Your task to perform on an android device: set the stopwatch Image 0: 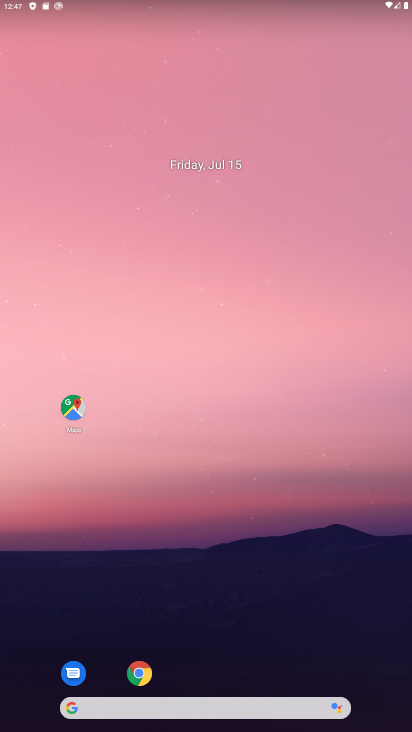
Step 0: drag from (265, 671) to (302, 28)
Your task to perform on an android device: set the stopwatch Image 1: 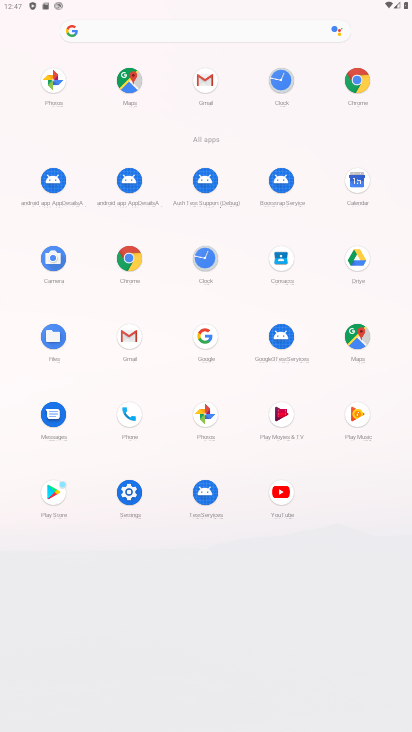
Step 1: click (277, 92)
Your task to perform on an android device: set the stopwatch Image 2: 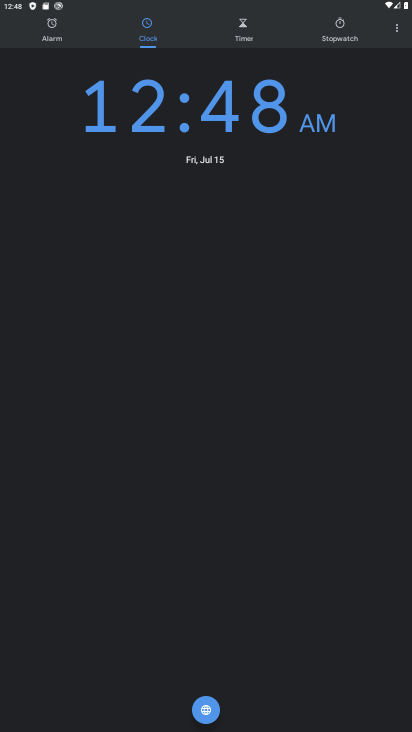
Step 2: click (334, 38)
Your task to perform on an android device: set the stopwatch Image 3: 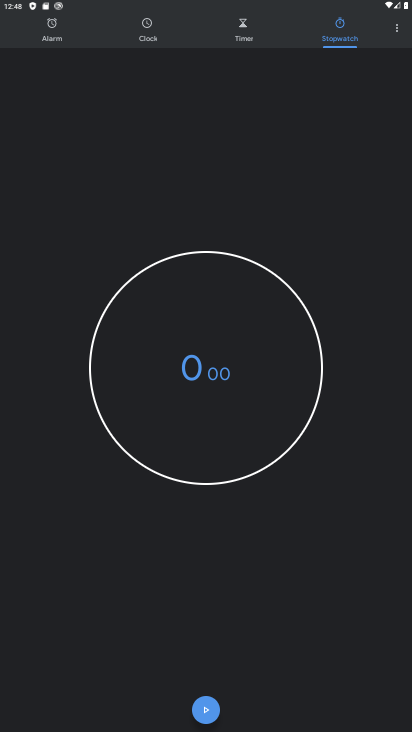
Step 3: click (203, 708)
Your task to perform on an android device: set the stopwatch Image 4: 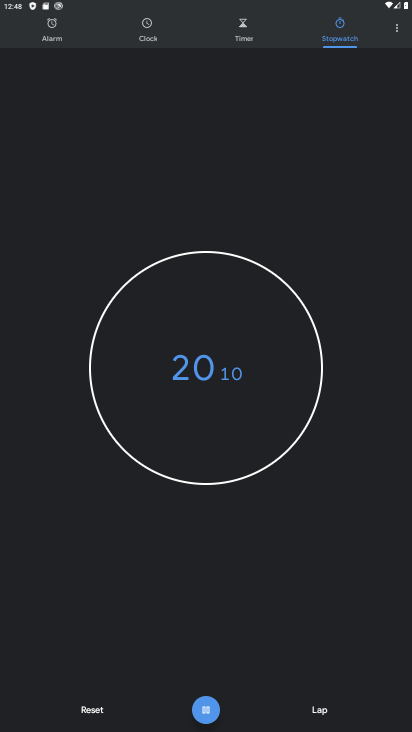
Step 4: task complete